Your task to perform on an android device: Open Reddit.com Image 0: 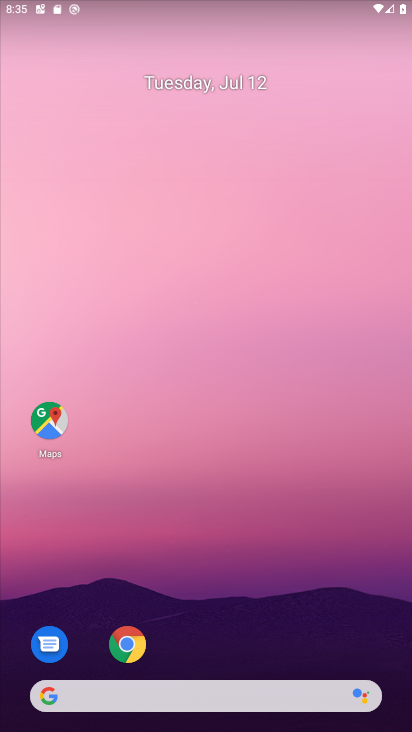
Step 0: drag from (337, 647) to (335, 13)
Your task to perform on an android device: Open Reddit.com Image 1: 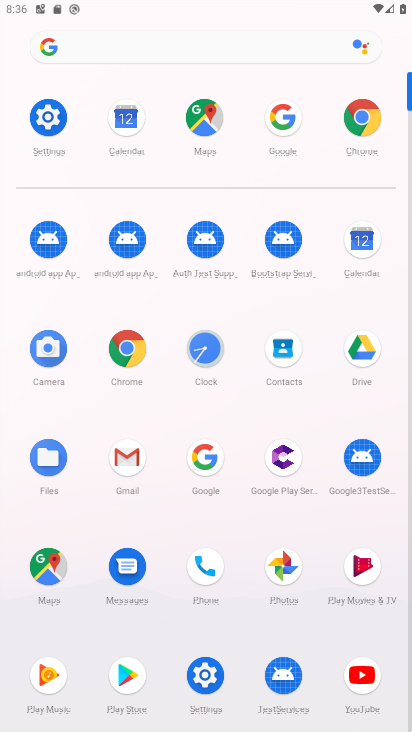
Step 1: click (345, 103)
Your task to perform on an android device: Open Reddit.com Image 2: 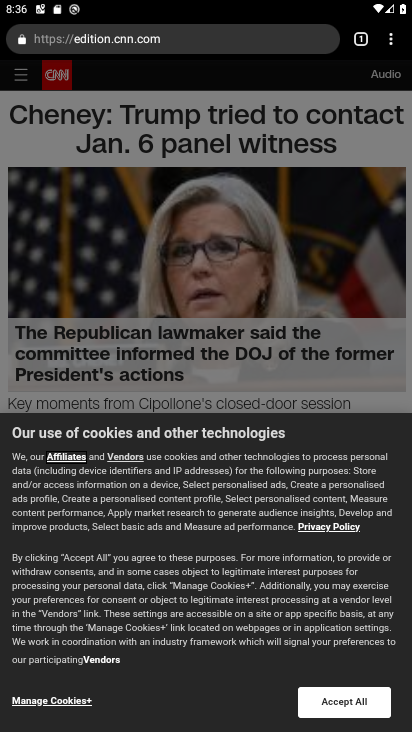
Step 2: click (203, 44)
Your task to perform on an android device: Open Reddit.com Image 3: 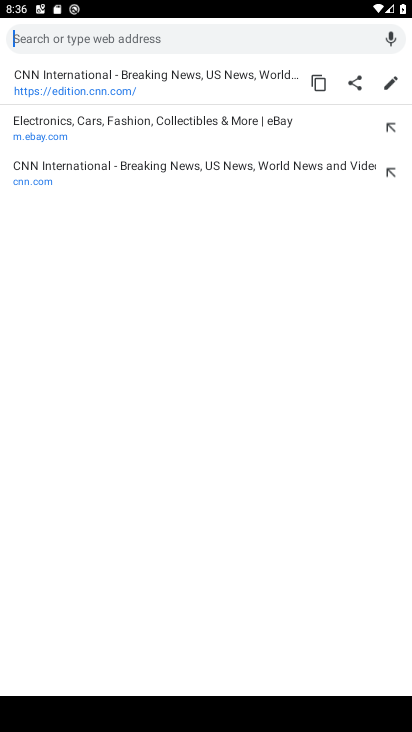
Step 3: type "Reddit.com"
Your task to perform on an android device: Open Reddit.com Image 4: 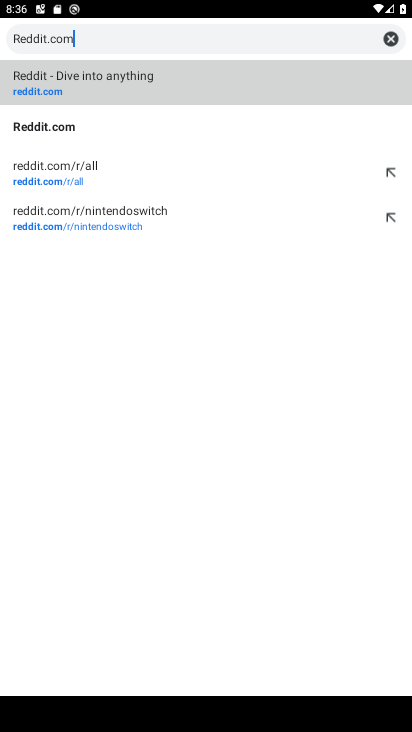
Step 4: click (88, 133)
Your task to perform on an android device: Open Reddit.com Image 5: 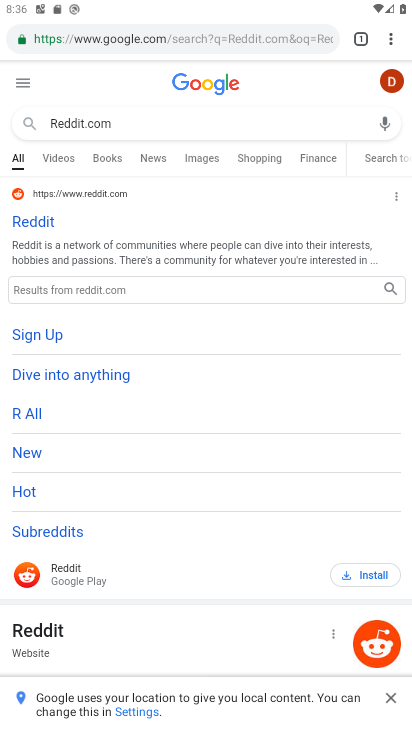
Step 5: click (35, 229)
Your task to perform on an android device: Open Reddit.com Image 6: 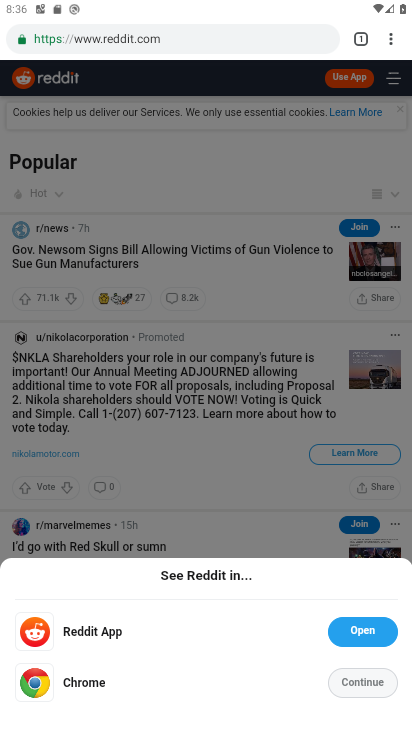
Step 6: click (95, 628)
Your task to perform on an android device: Open Reddit.com Image 7: 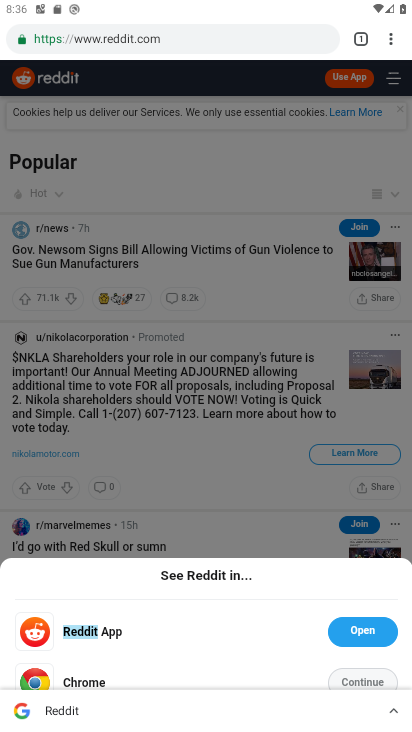
Step 7: click (372, 638)
Your task to perform on an android device: Open Reddit.com Image 8: 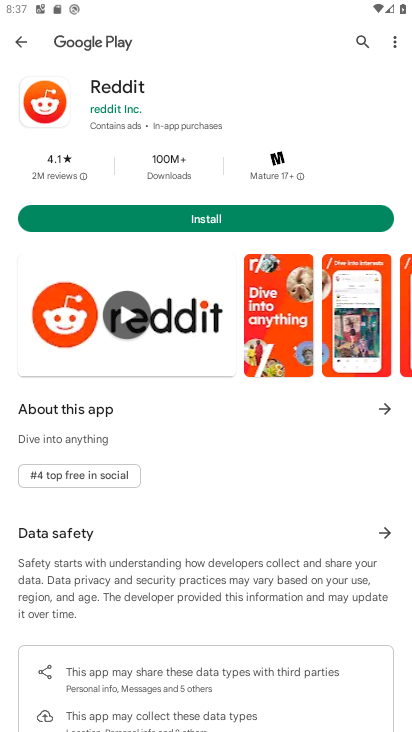
Step 8: task complete